Your task to perform on an android device: Go to Android settings Image 0: 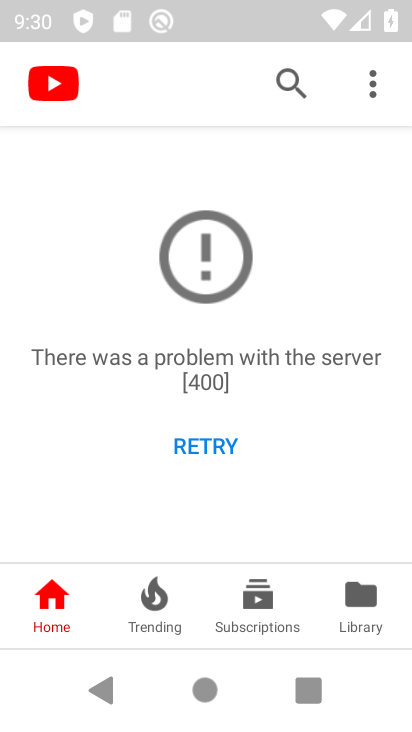
Step 0: press home button
Your task to perform on an android device: Go to Android settings Image 1: 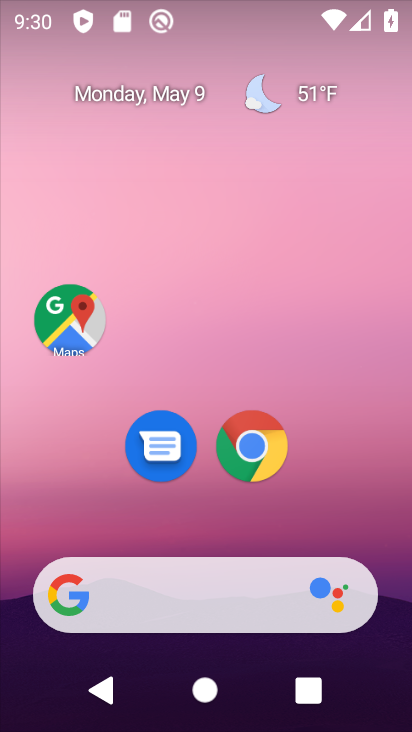
Step 1: drag from (342, 503) to (254, 8)
Your task to perform on an android device: Go to Android settings Image 2: 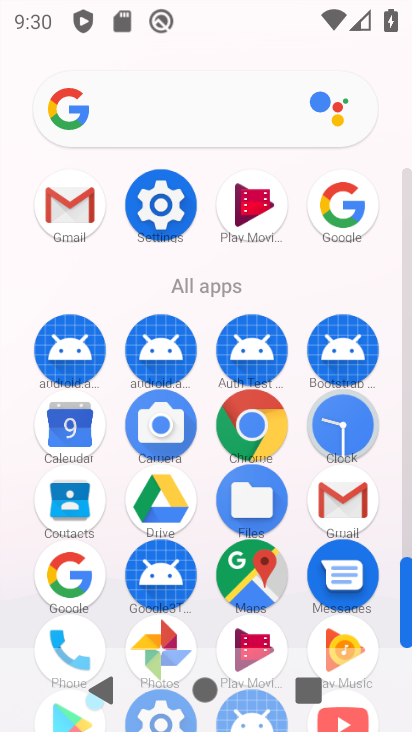
Step 2: click (172, 210)
Your task to perform on an android device: Go to Android settings Image 3: 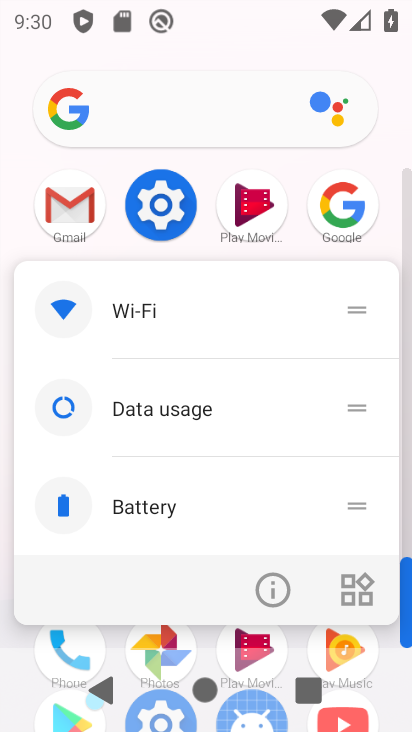
Step 3: click (171, 209)
Your task to perform on an android device: Go to Android settings Image 4: 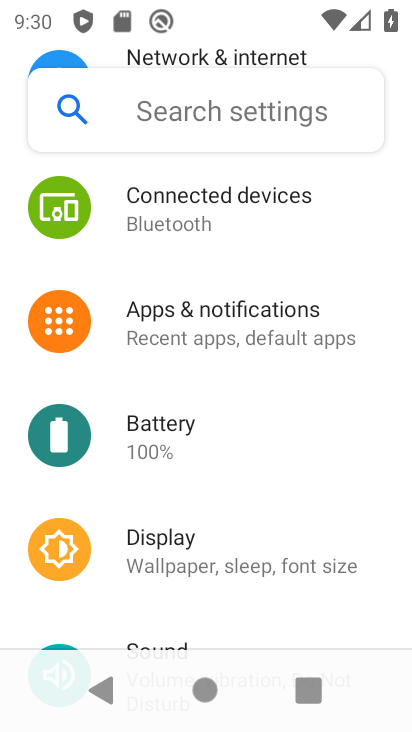
Step 4: task complete